Your task to perform on an android device: change the clock display to digital Image 0: 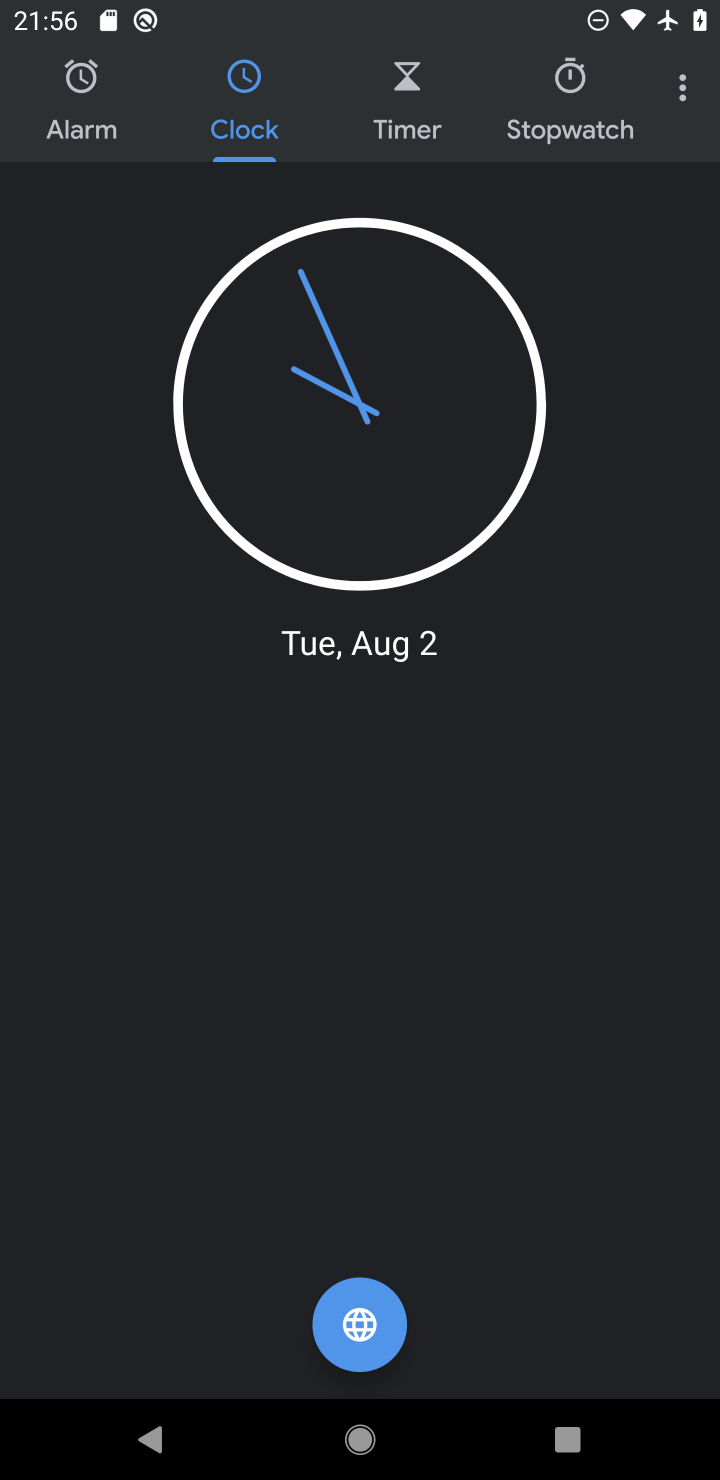
Step 0: click (681, 98)
Your task to perform on an android device: change the clock display to digital Image 1: 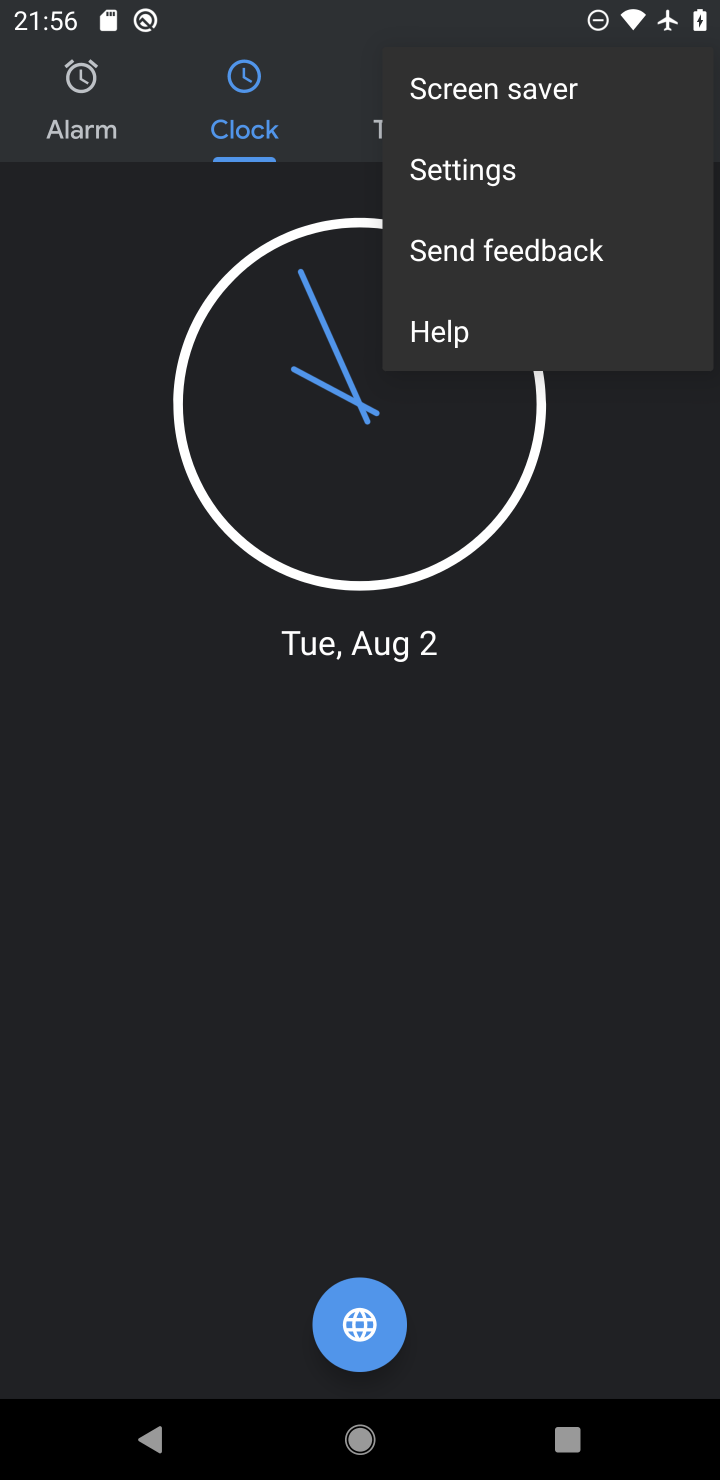
Step 1: click (459, 164)
Your task to perform on an android device: change the clock display to digital Image 2: 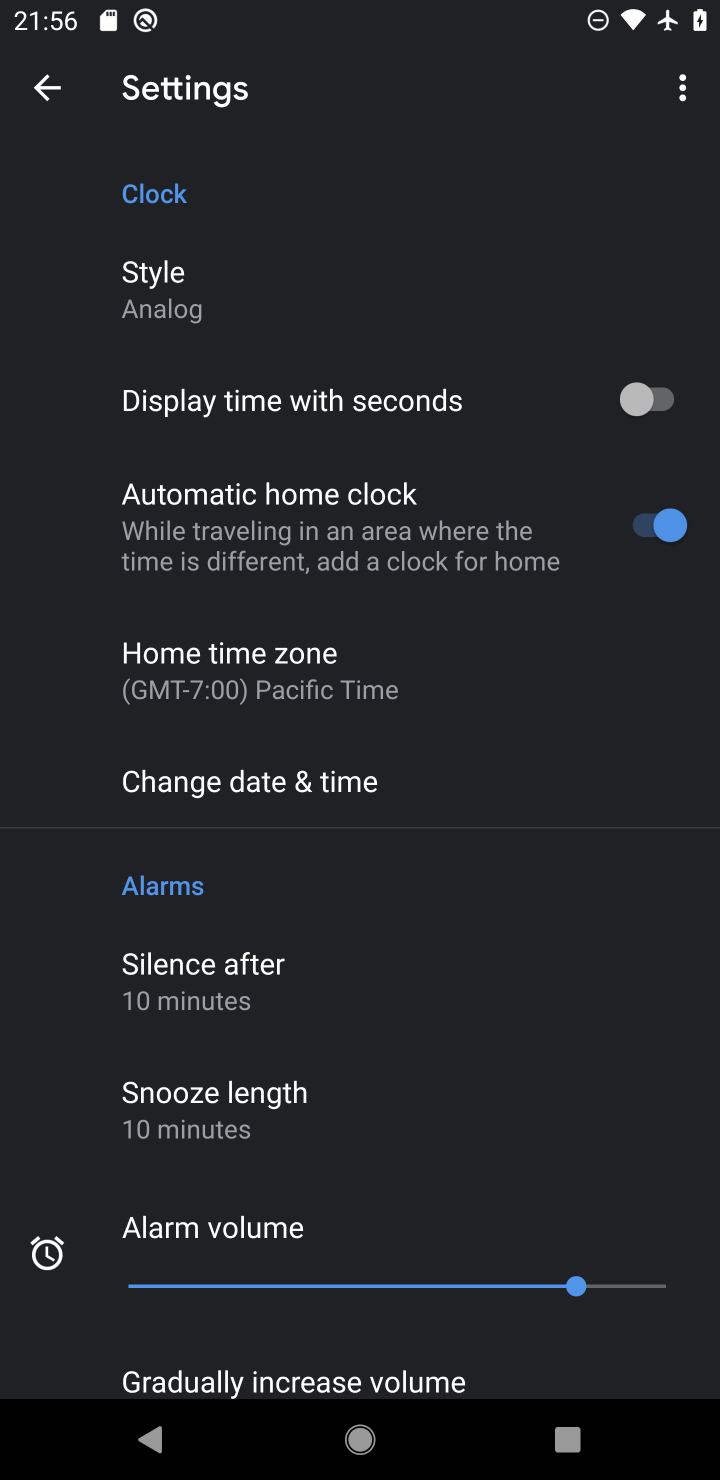
Step 2: click (170, 297)
Your task to perform on an android device: change the clock display to digital Image 3: 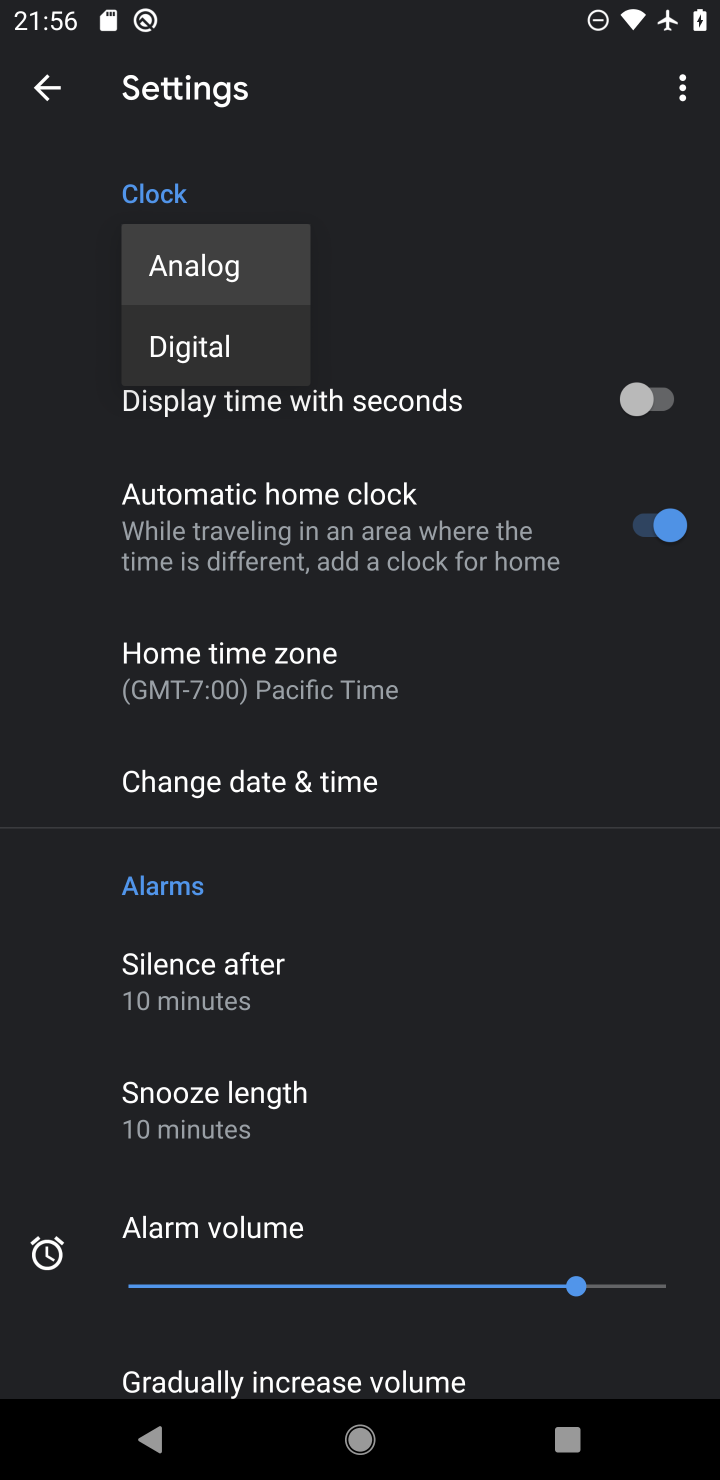
Step 3: click (196, 347)
Your task to perform on an android device: change the clock display to digital Image 4: 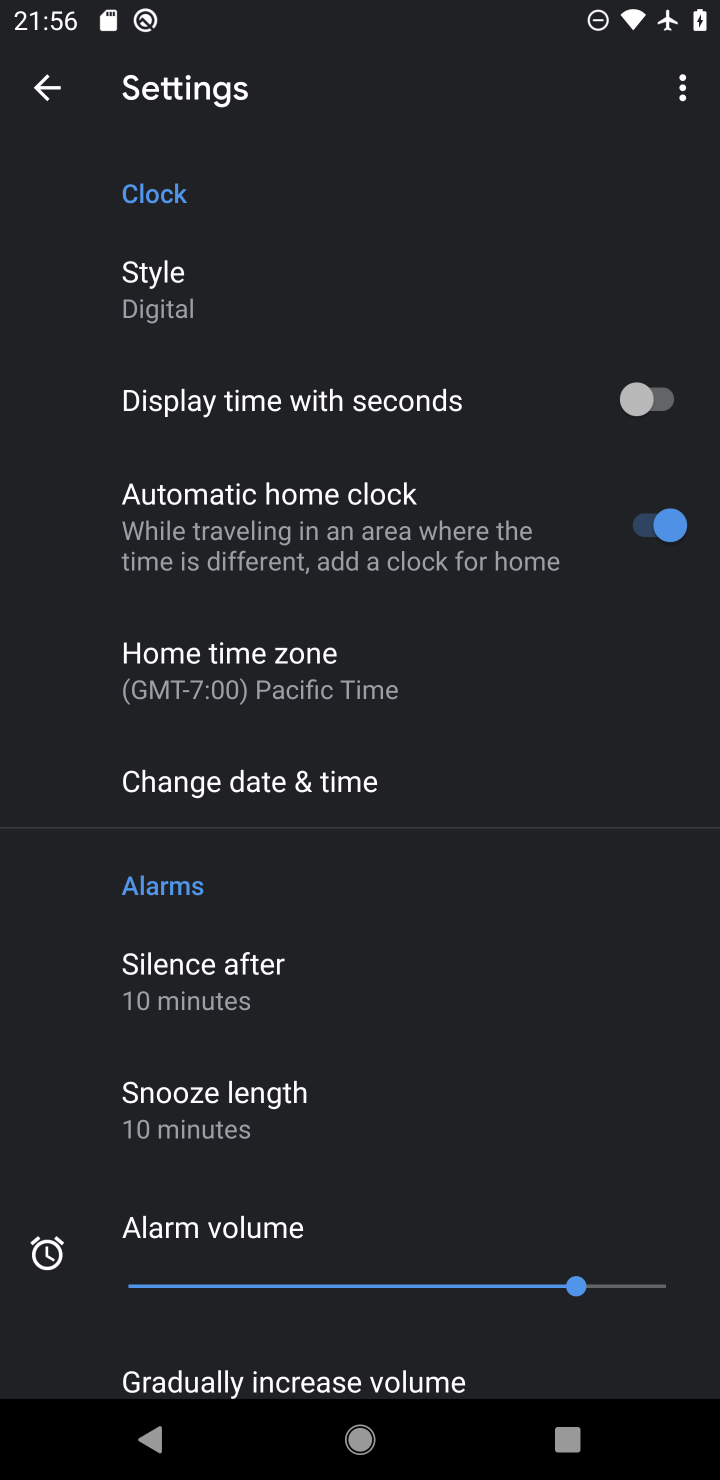
Step 4: task complete